Your task to perform on an android device: Open Chrome and go to the settings page Image 0: 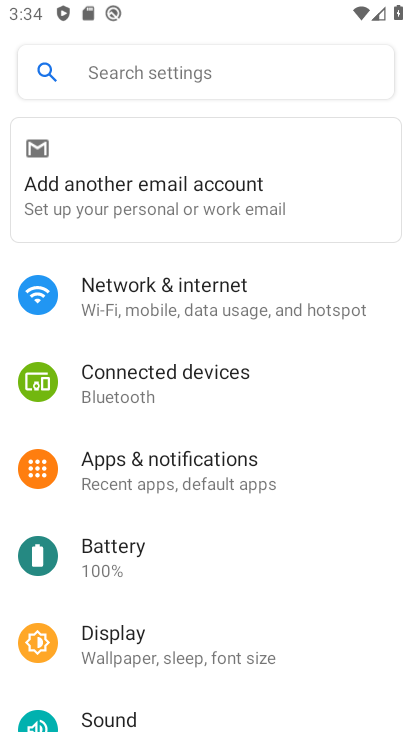
Step 0: press home button
Your task to perform on an android device: Open Chrome and go to the settings page Image 1: 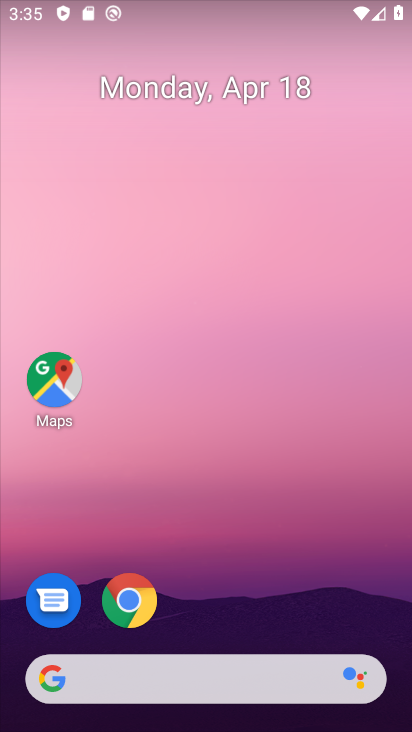
Step 1: click (130, 600)
Your task to perform on an android device: Open Chrome and go to the settings page Image 2: 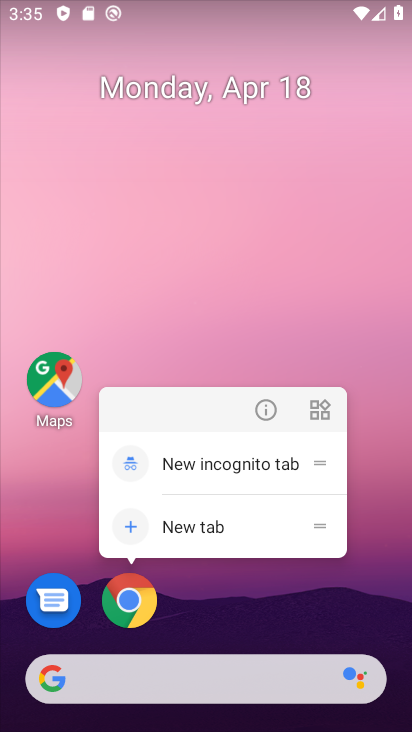
Step 2: click (151, 588)
Your task to perform on an android device: Open Chrome and go to the settings page Image 3: 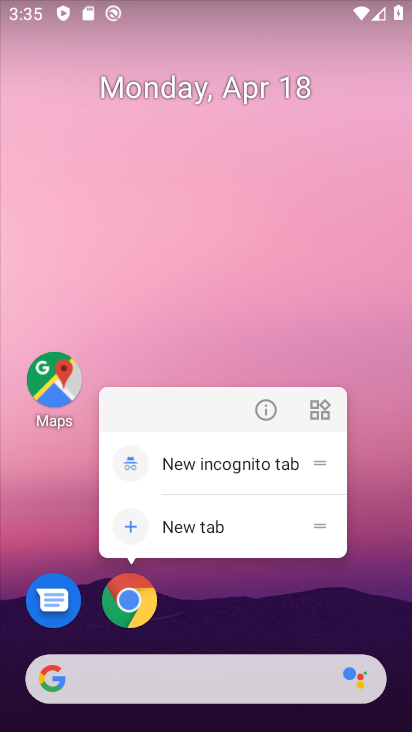
Step 3: click (106, 622)
Your task to perform on an android device: Open Chrome and go to the settings page Image 4: 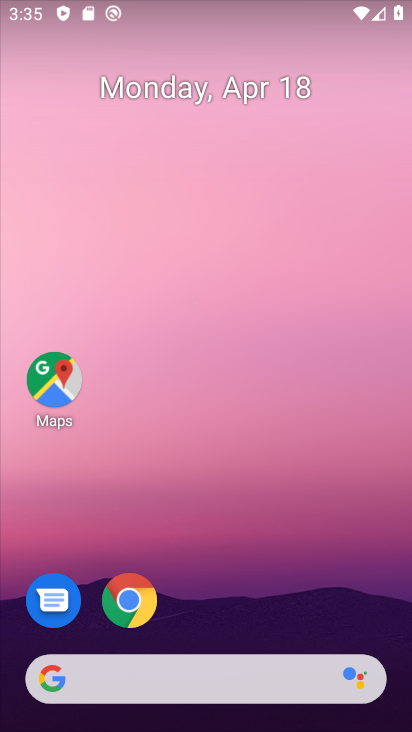
Step 4: click (129, 603)
Your task to perform on an android device: Open Chrome and go to the settings page Image 5: 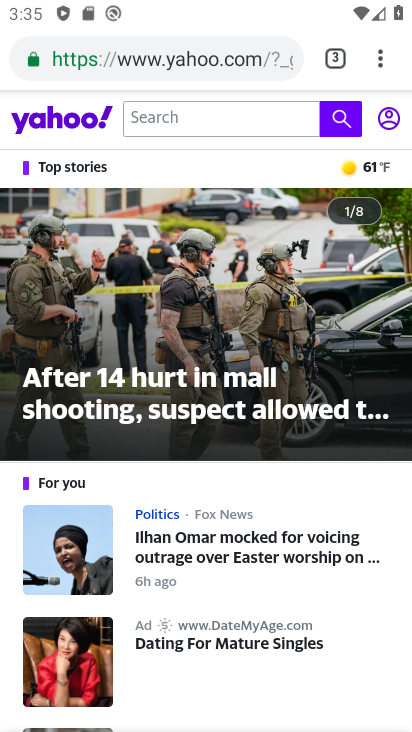
Step 5: click (380, 51)
Your task to perform on an android device: Open Chrome and go to the settings page Image 6: 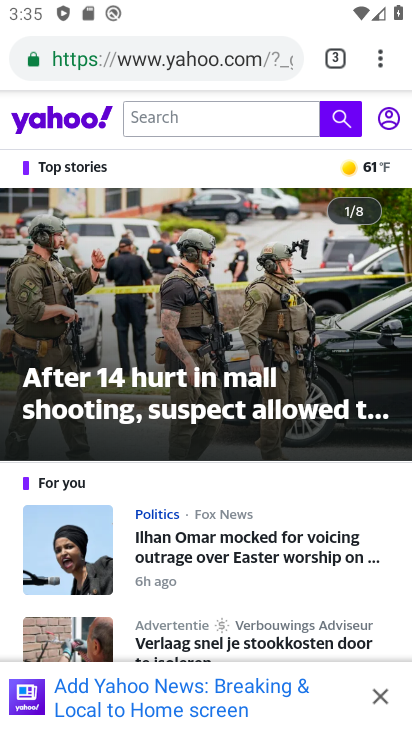
Step 6: click (378, 63)
Your task to perform on an android device: Open Chrome and go to the settings page Image 7: 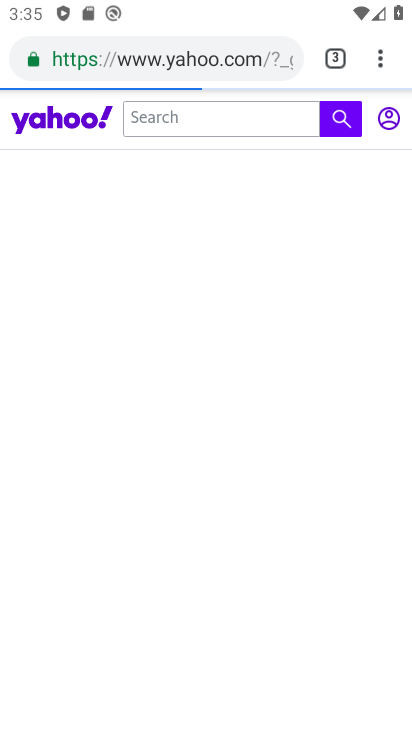
Step 7: click (378, 63)
Your task to perform on an android device: Open Chrome and go to the settings page Image 8: 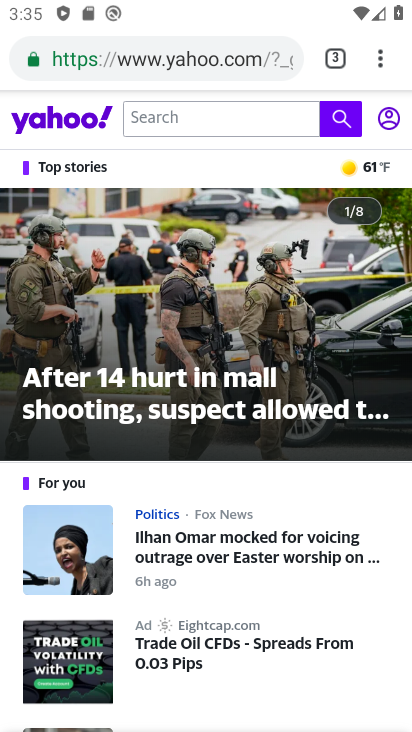
Step 8: click (378, 63)
Your task to perform on an android device: Open Chrome and go to the settings page Image 9: 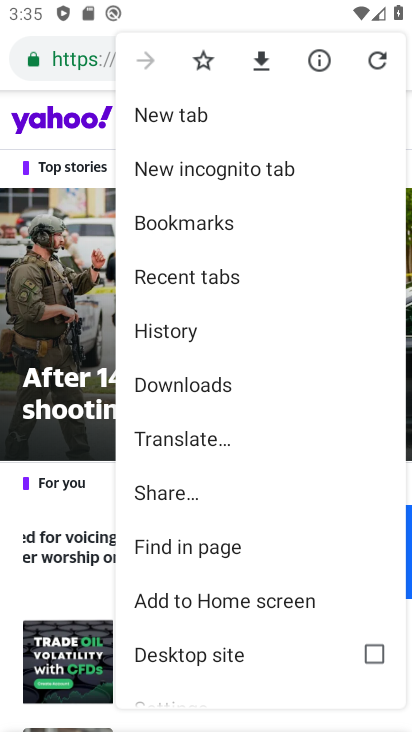
Step 9: click (167, 696)
Your task to perform on an android device: Open Chrome and go to the settings page Image 10: 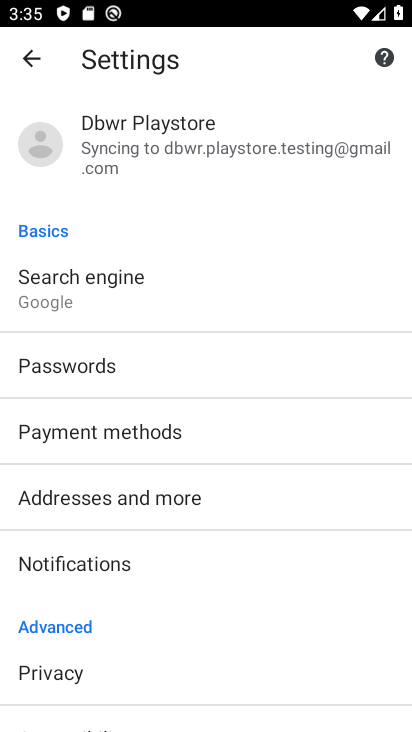
Step 10: task complete